Your task to perform on an android device: Do I have any events this weekend? Image 0: 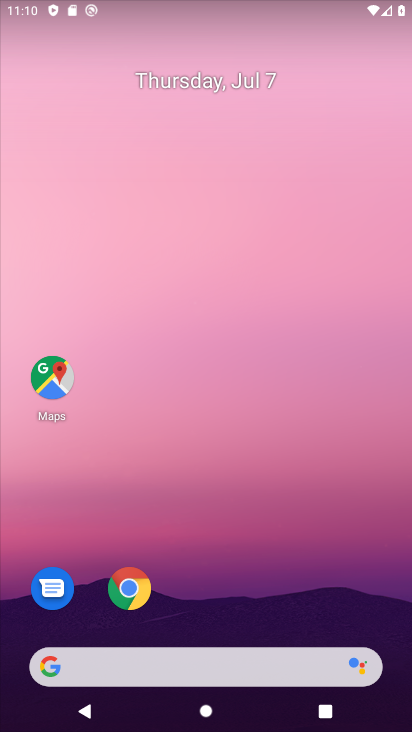
Step 0: drag from (217, 645) to (215, 103)
Your task to perform on an android device: Do I have any events this weekend? Image 1: 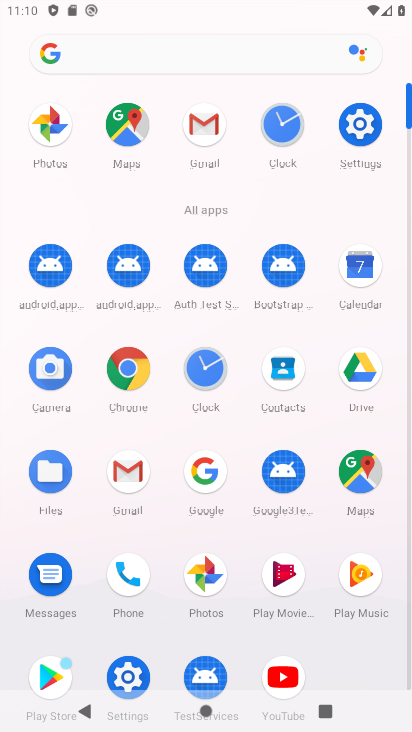
Step 1: click (359, 280)
Your task to perform on an android device: Do I have any events this weekend? Image 2: 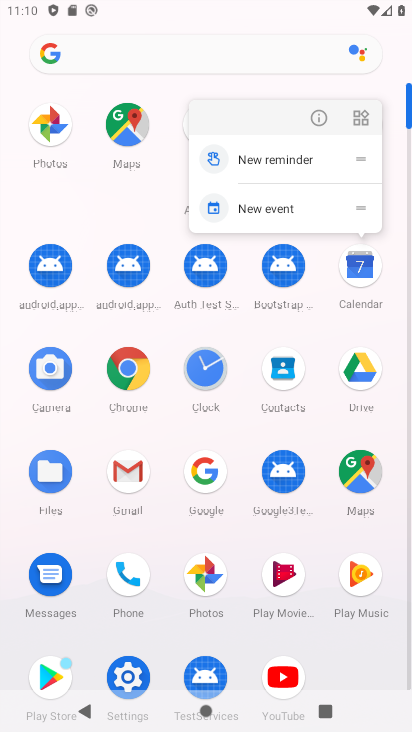
Step 2: click (361, 277)
Your task to perform on an android device: Do I have any events this weekend? Image 3: 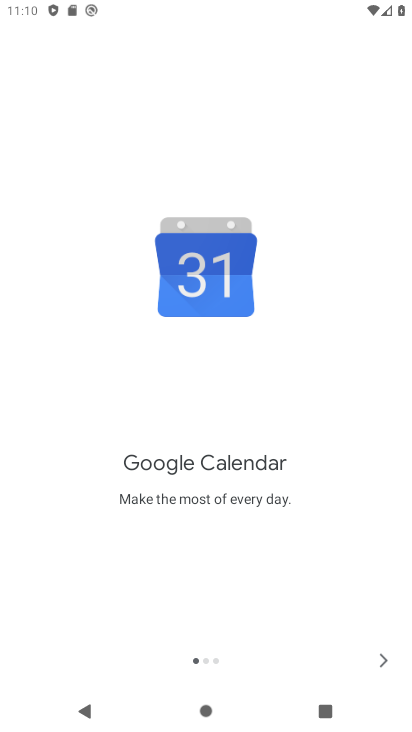
Step 3: click (377, 653)
Your task to perform on an android device: Do I have any events this weekend? Image 4: 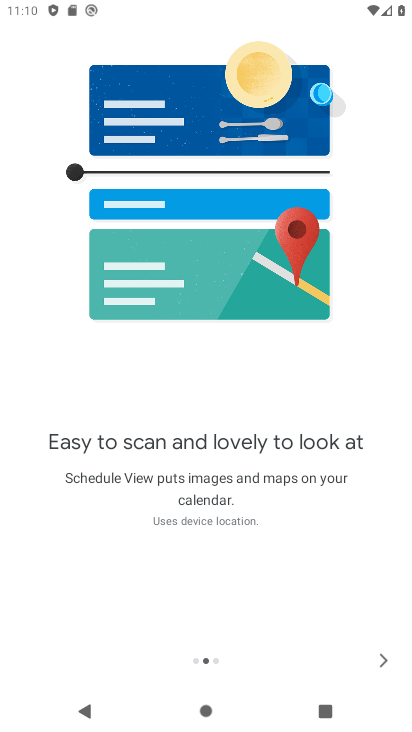
Step 4: click (377, 653)
Your task to perform on an android device: Do I have any events this weekend? Image 5: 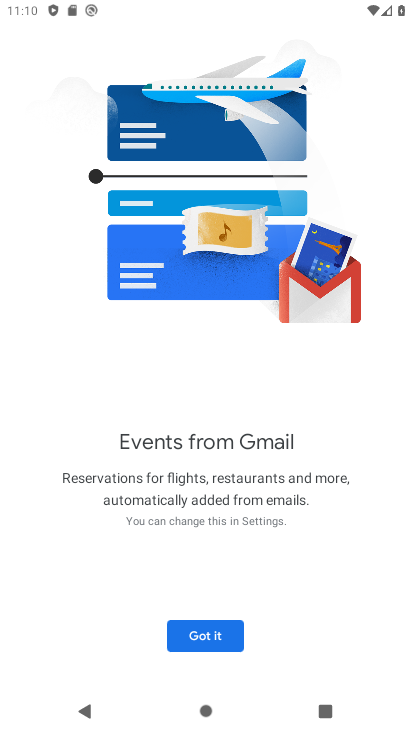
Step 5: click (233, 649)
Your task to perform on an android device: Do I have any events this weekend? Image 6: 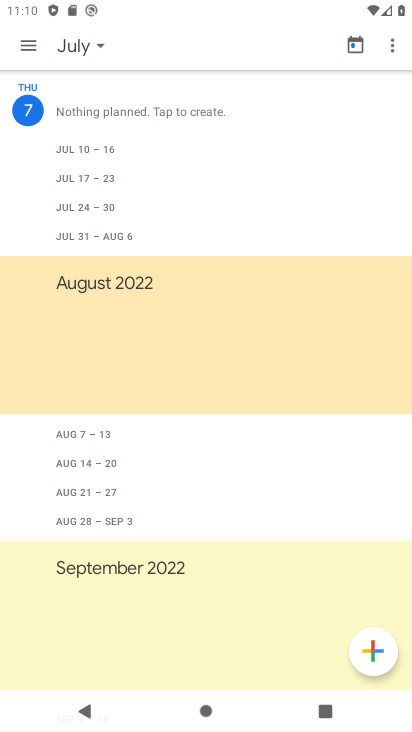
Step 6: click (19, 44)
Your task to perform on an android device: Do I have any events this weekend? Image 7: 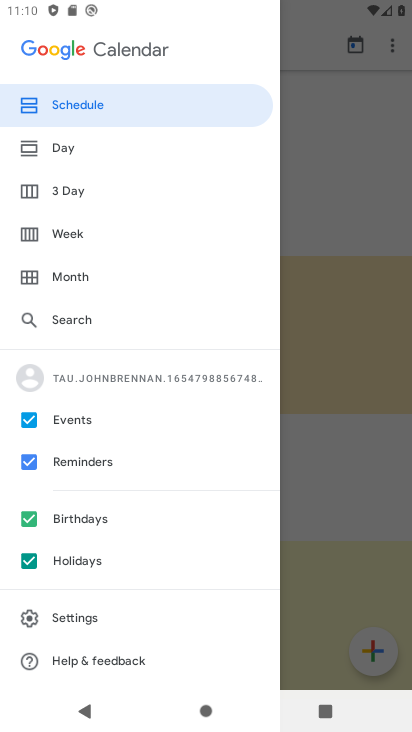
Step 7: drag from (94, 220) to (123, 503)
Your task to perform on an android device: Do I have any events this weekend? Image 8: 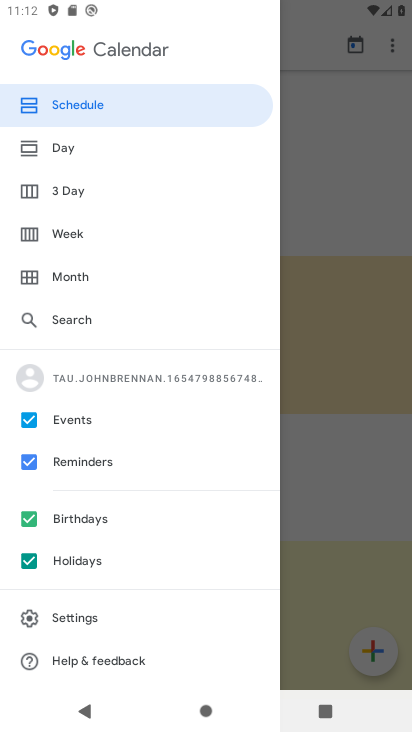
Step 8: click (80, 239)
Your task to perform on an android device: Do I have any events this weekend? Image 9: 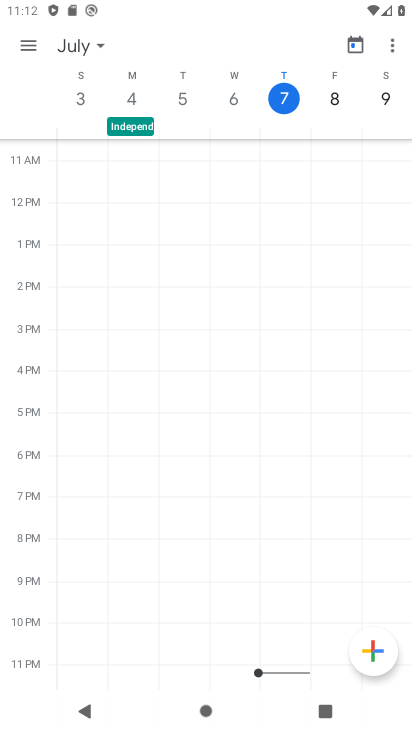
Step 9: task complete